Your task to perform on an android device: Open Google Chrome and open the bookmarks view Image 0: 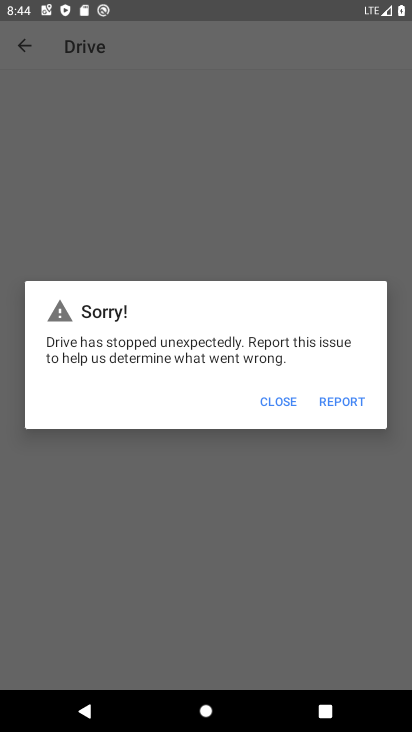
Step 0: press home button
Your task to perform on an android device: Open Google Chrome and open the bookmarks view Image 1: 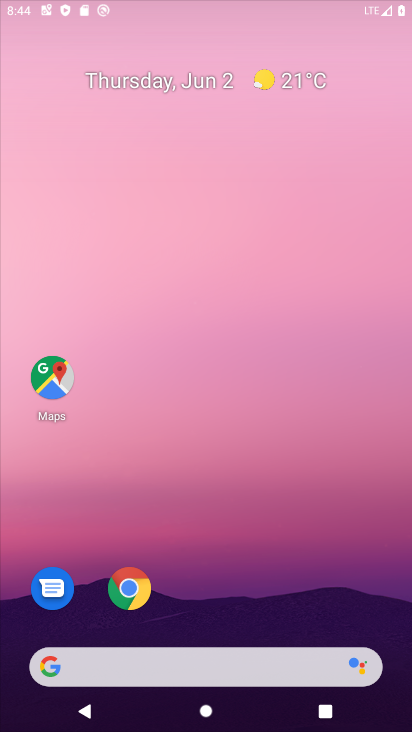
Step 1: drag from (177, 700) to (208, 45)
Your task to perform on an android device: Open Google Chrome and open the bookmarks view Image 2: 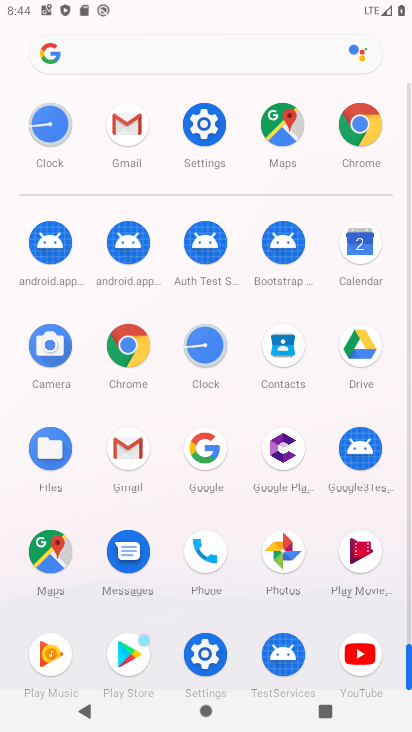
Step 2: click (149, 363)
Your task to perform on an android device: Open Google Chrome and open the bookmarks view Image 3: 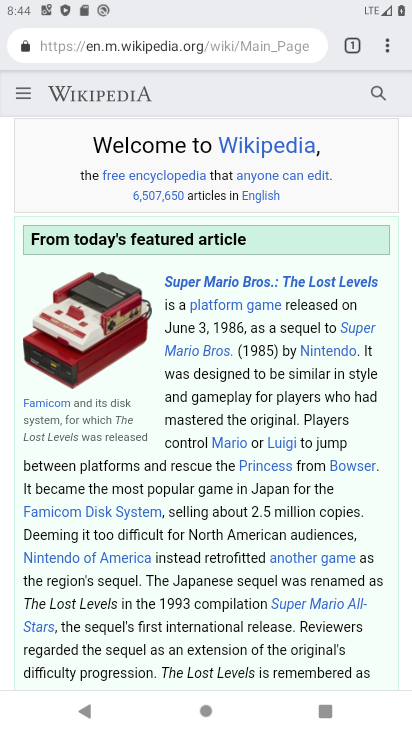
Step 3: click (390, 44)
Your task to perform on an android device: Open Google Chrome and open the bookmarks view Image 4: 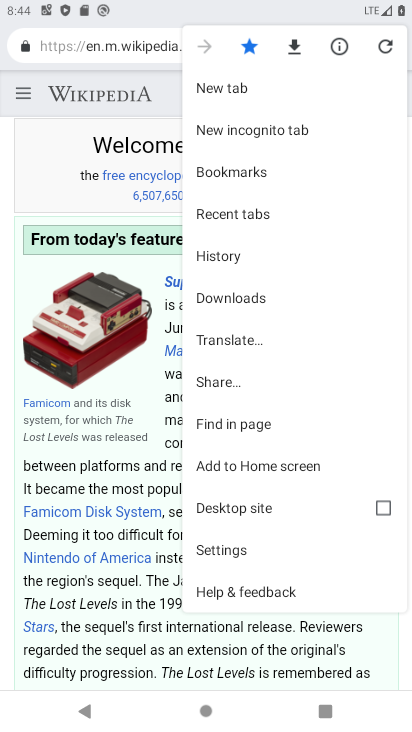
Step 4: click (257, 175)
Your task to perform on an android device: Open Google Chrome and open the bookmarks view Image 5: 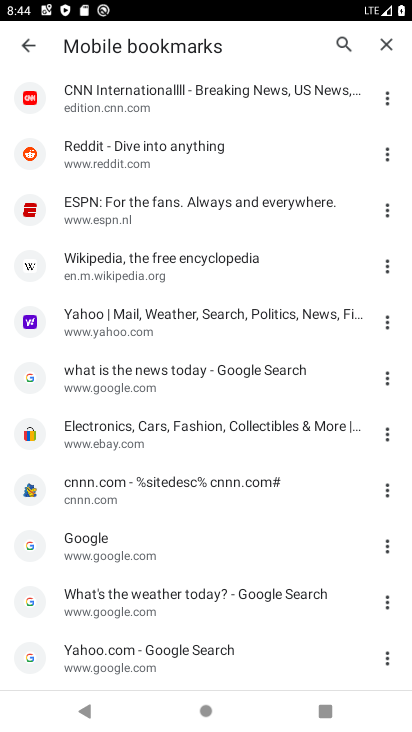
Step 5: task complete